Your task to perform on an android device: open app "Messages" (install if not already installed) Image 0: 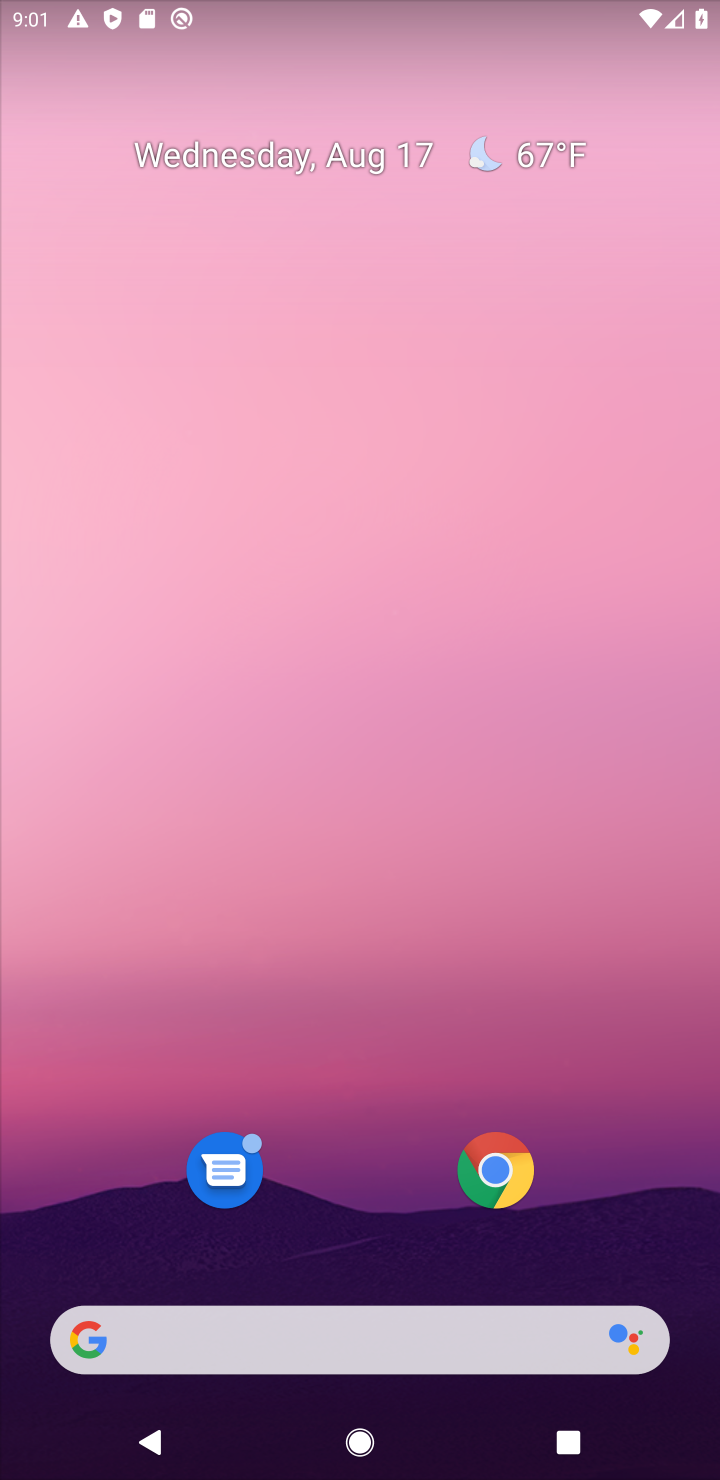
Step 0: click (202, 1172)
Your task to perform on an android device: open app "Messages" (install if not already installed) Image 1: 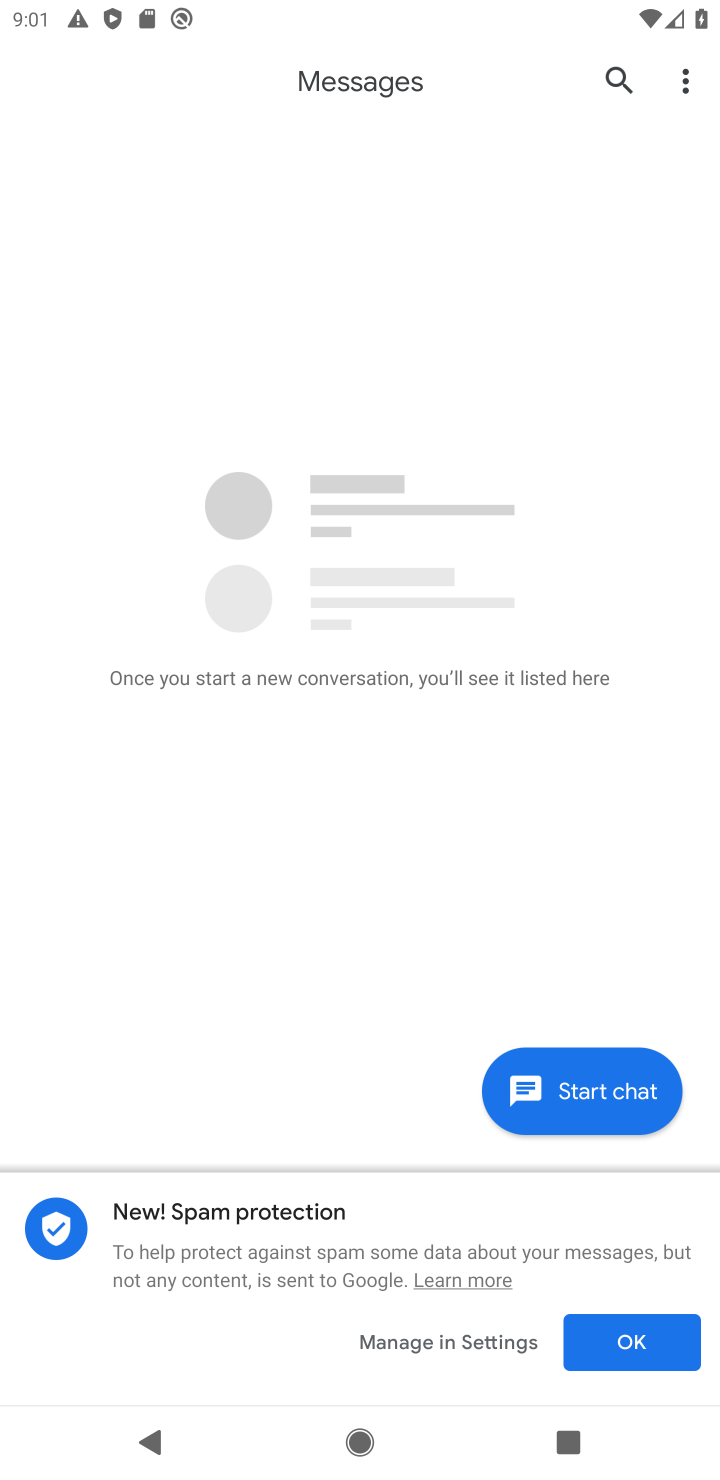
Step 1: click (619, 1347)
Your task to perform on an android device: open app "Messages" (install if not already installed) Image 2: 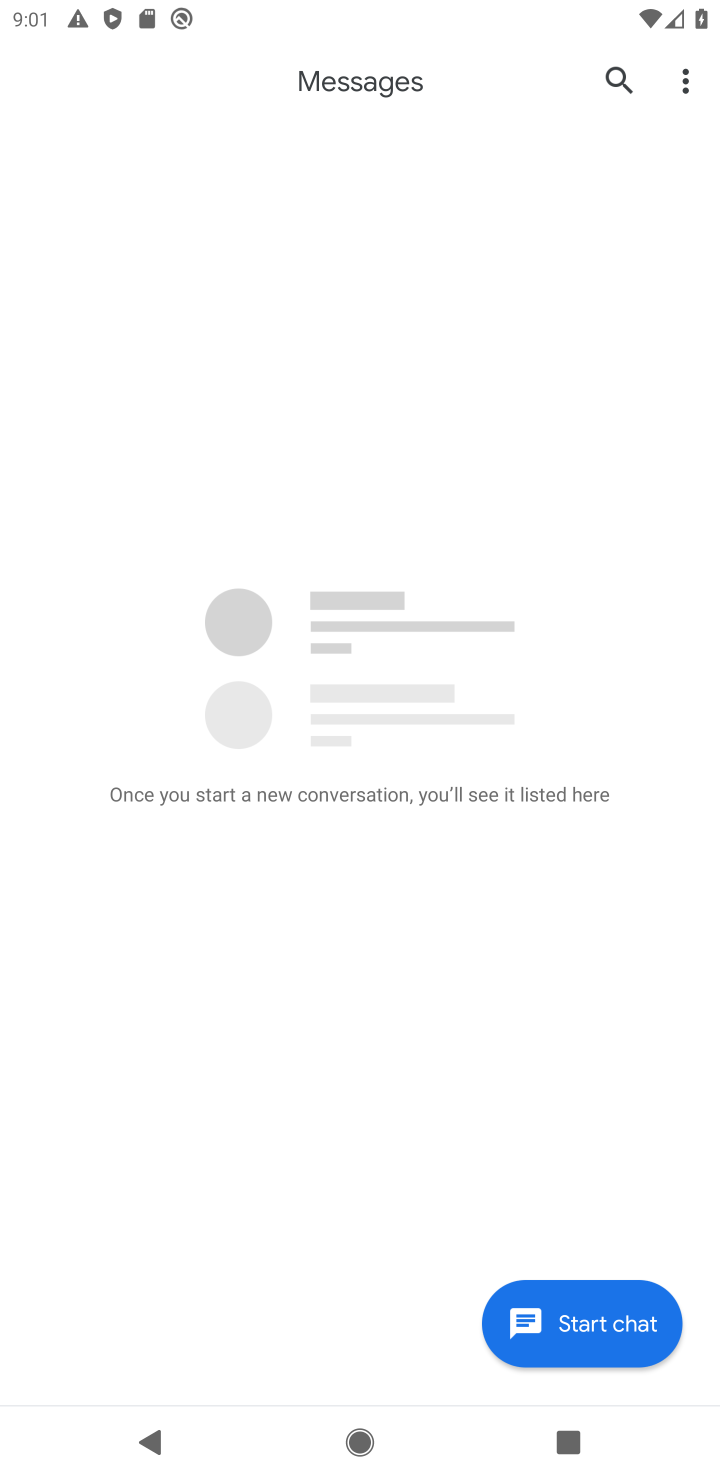
Step 2: task complete